Your task to perform on an android device: Go to battery settings Image 0: 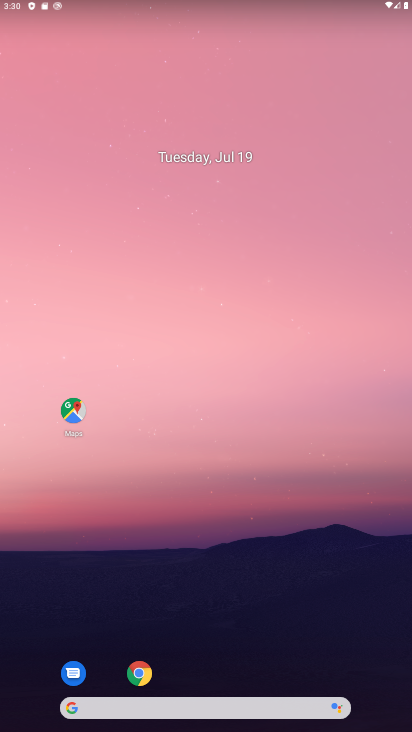
Step 0: drag from (286, 639) to (293, 230)
Your task to perform on an android device: Go to battery settings Image 1: 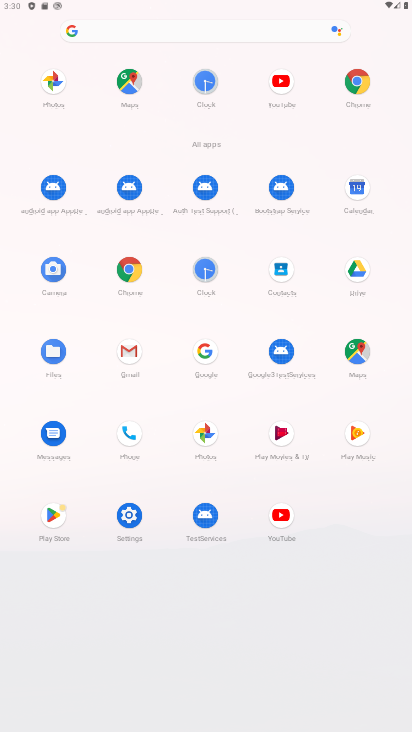
Step 1: click (135, 504)
Your task to perform on an android device: Go to battery settings Image 2: 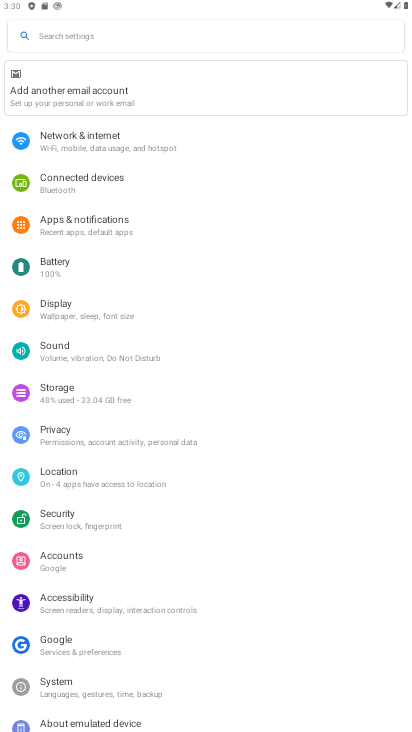
Step 2: click (55, 264)
Your task to perform on an android device: Go to battery settings Image 3: 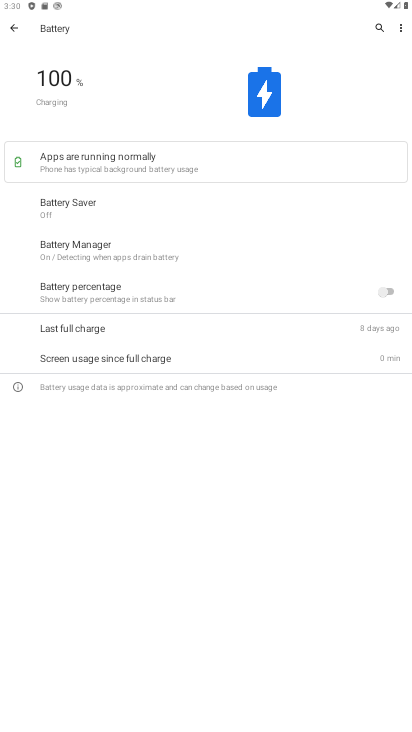
Step 3: task complete